Your task to perform on an android device: Open calendar and show me the third week of next month Image 0: 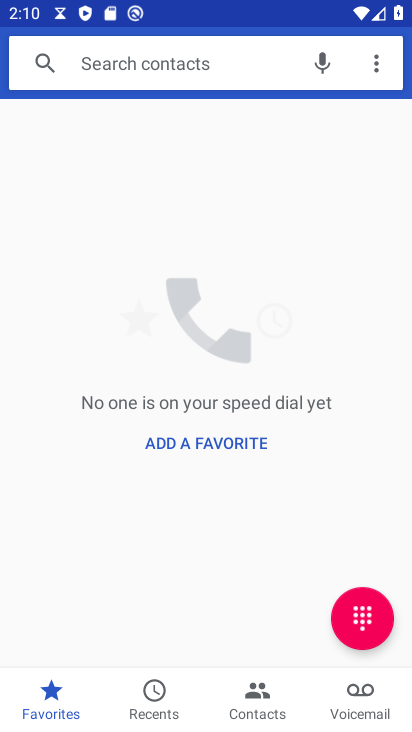
Step 0: press home button
Your task to perform on an android device: Open calendar and show me the third week of next month Image 1: 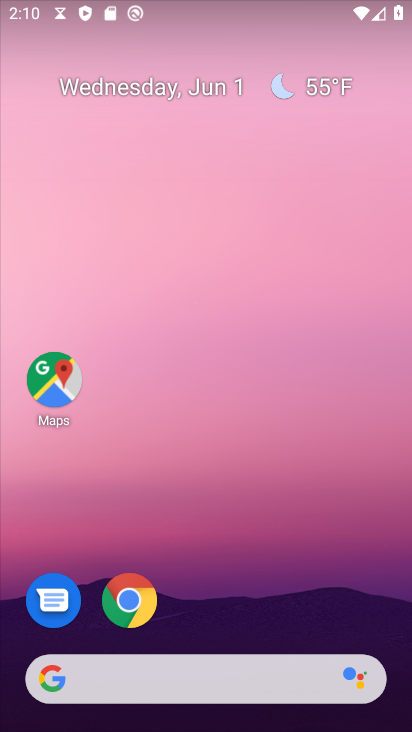
Step 1: drag from (263, 599) to (207, 233)
Your task to perform on an android device: Open calendar and show me the third week of next month Image 2: 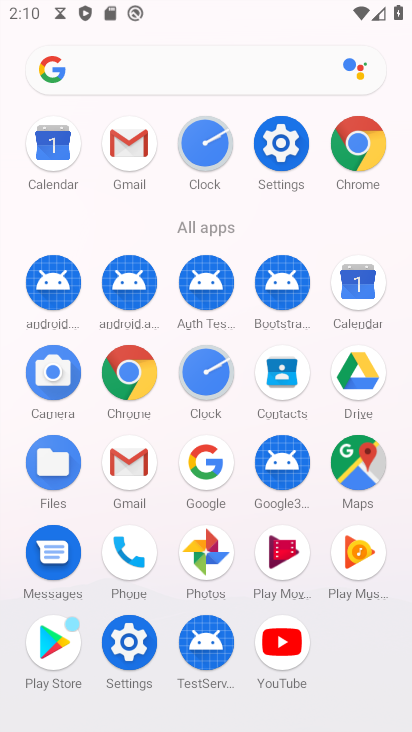
Step 2: click (366, 290)
Your task to perform on an android device: Open calendar and show me the third week of next month Image 3: 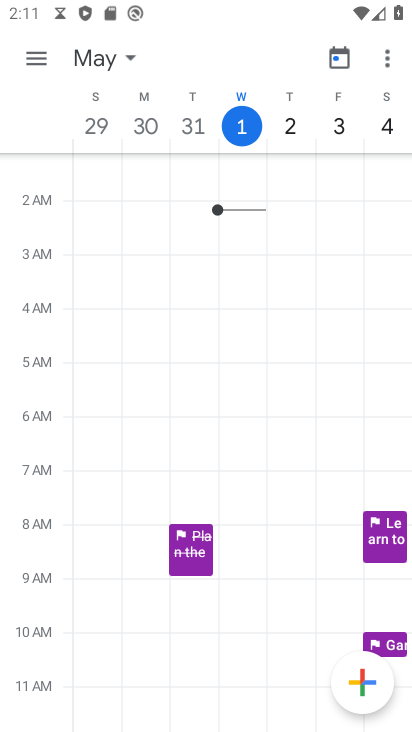
Step 3: click (135, 60)
Your task to perform on an android device: Open calendar and show me the third week of next month Image 4: 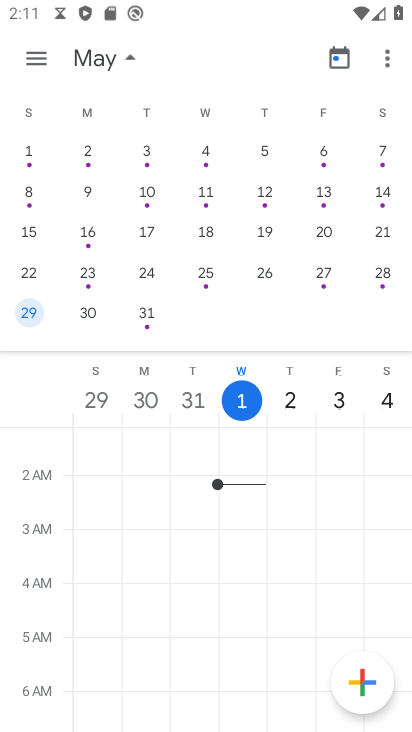
Step 4: drag from (366, 224) to (0, 202)
Your task to perform on an android device: Open calendar and show me the third week of next month Image 5: 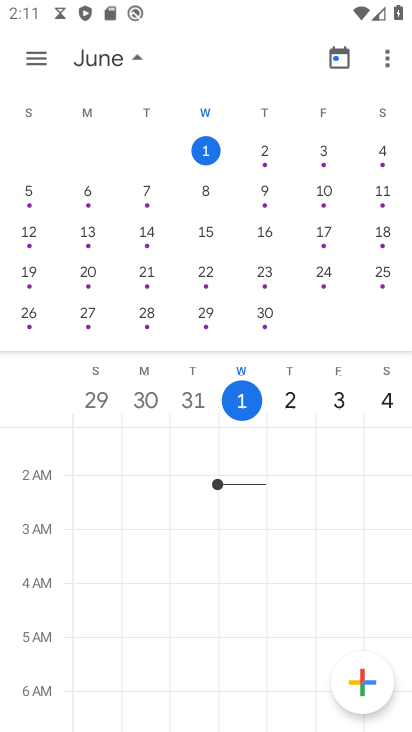
Step 5: drag from (361, 239) to (106, 233)
Your task to perform on an android device: Open calendar and show me the third week of next month Image 6: 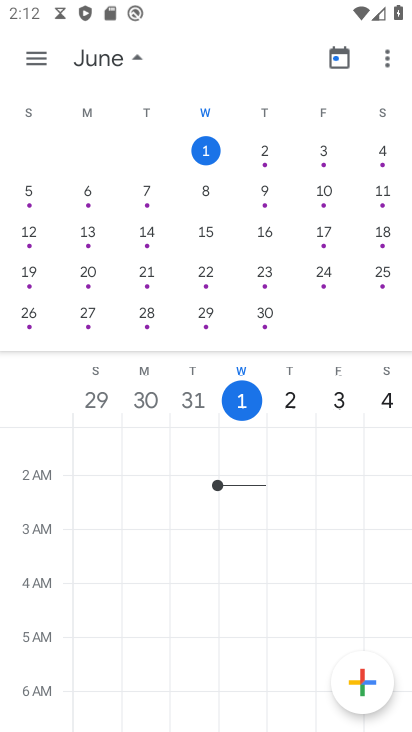
Step 6: click (208, 232)
Your task to perform on an android device: Open calendar and show me the third week of next month Image 7: 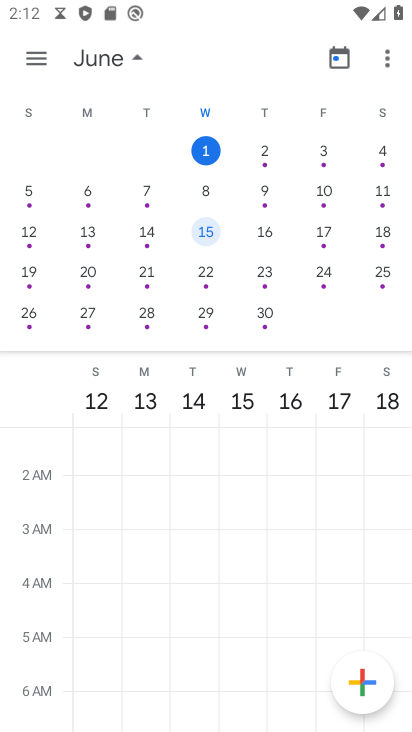
Step 7: task complete